Your task to perform on an android device: Go to network settings Image 0: 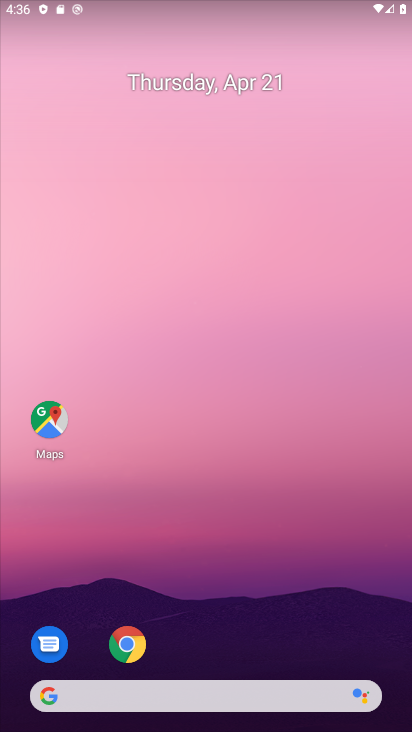
Step 0: drag from (268, 537) to (292, 184)
Your task to perform on an android device: Go to network settings Image 1: 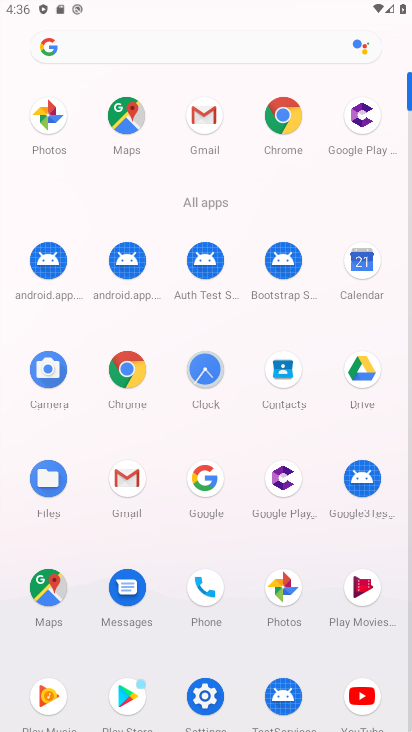
Step 1: click (201, 700)
Your task to perform on an android device: Go to network settings Image 2: 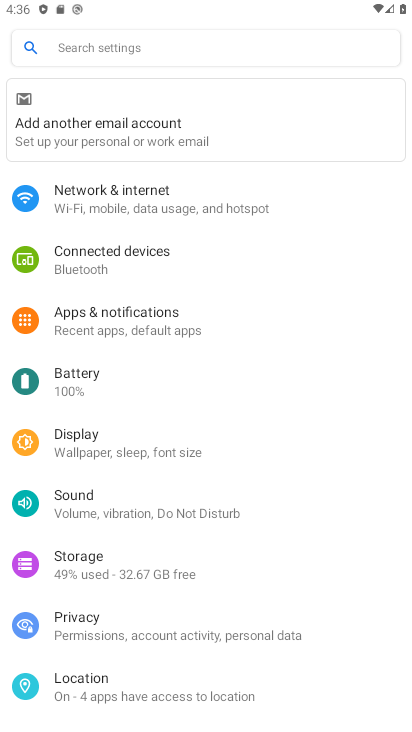
Step 2: drag from (180, 546) to (259, 206)
Your task to perform on an android device: Go to network settings Image 3: 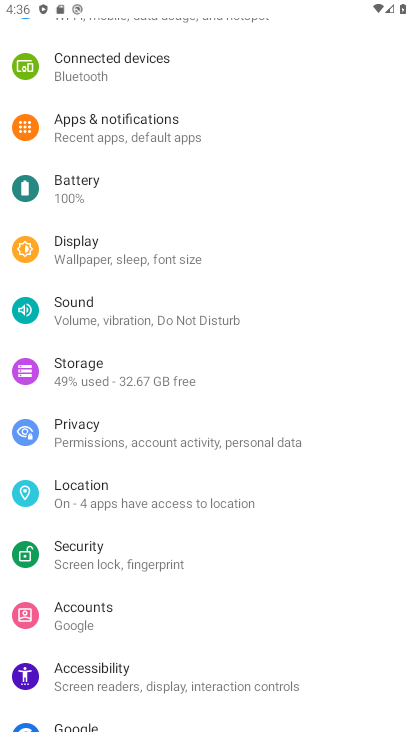
Step 3: drag from (161, 569) to (257, 172)
Your task to perform on an android device: Go to network settings Image 4: 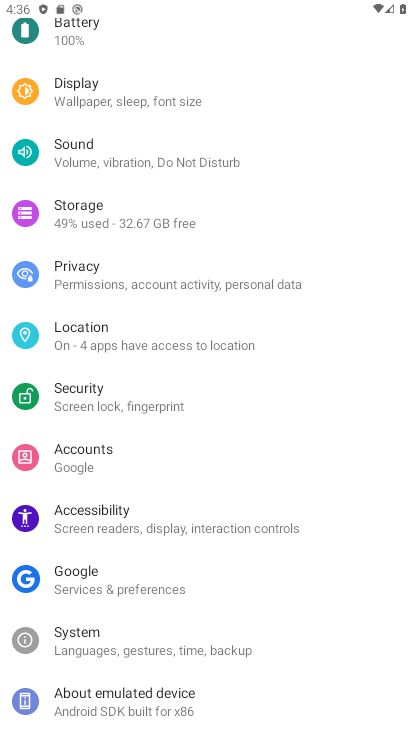
Step 4: drag from (185, 189) to (182, 604)
Your task to perform on an android device: Go to network settings Image 5: 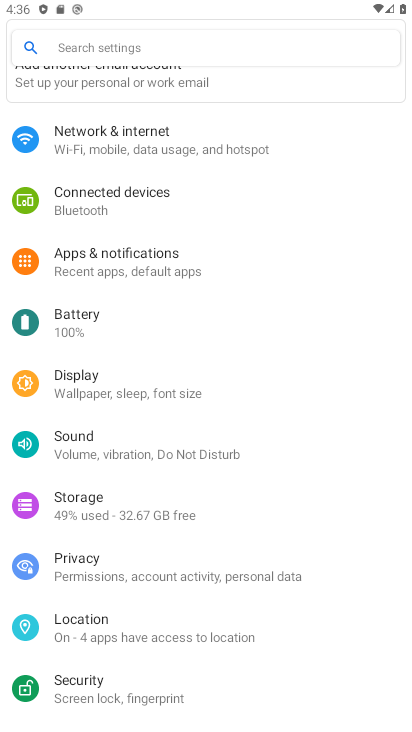
Step 5: click (127, 134)
Your task to perform on an android device: Go to network settings Image 6: 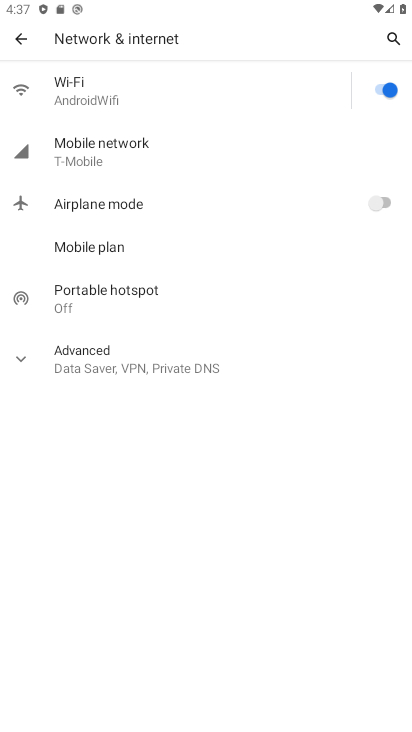
Step 6: task complete